Your task to perform on an android device: Look up the best rated bike seats on Target Image 0: 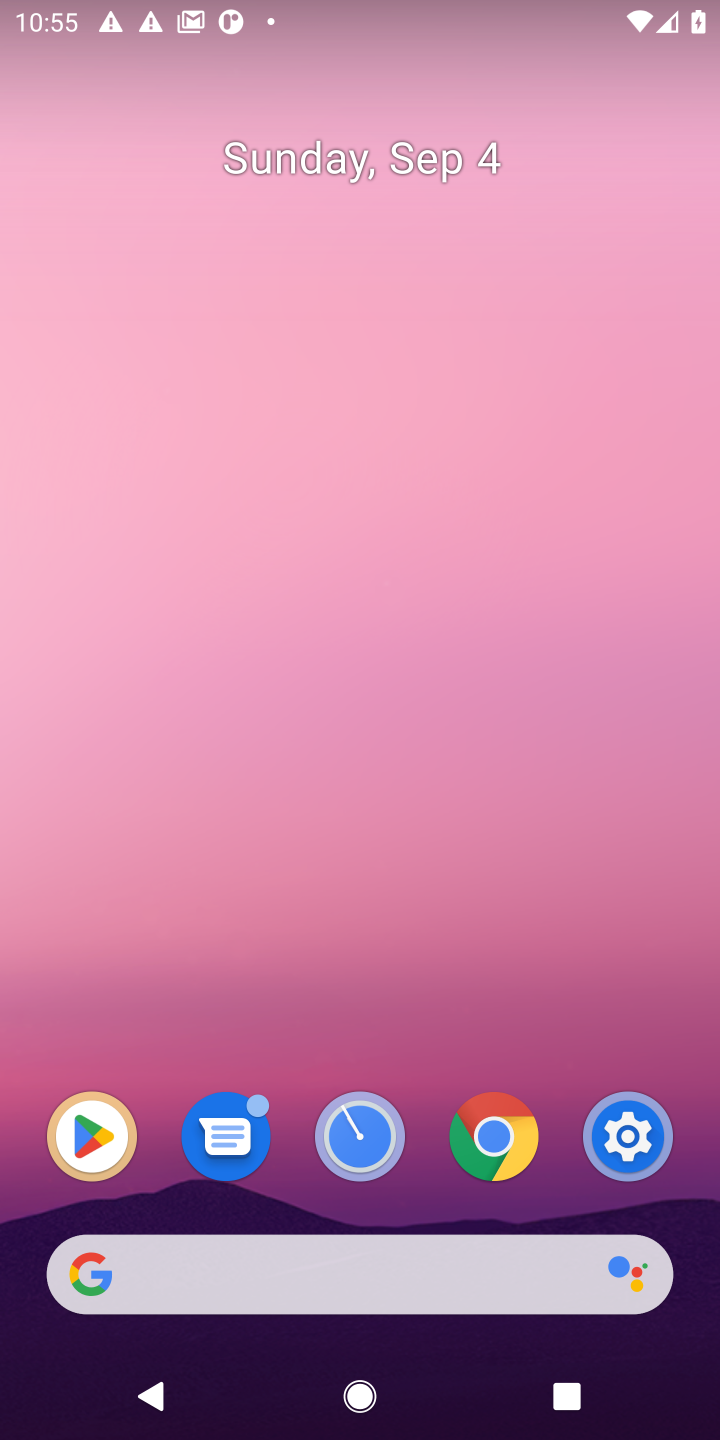
Step 0: click (489, 1139)
Your task to perform on an android device: Look up the best rated bike seats on Target Image 1: 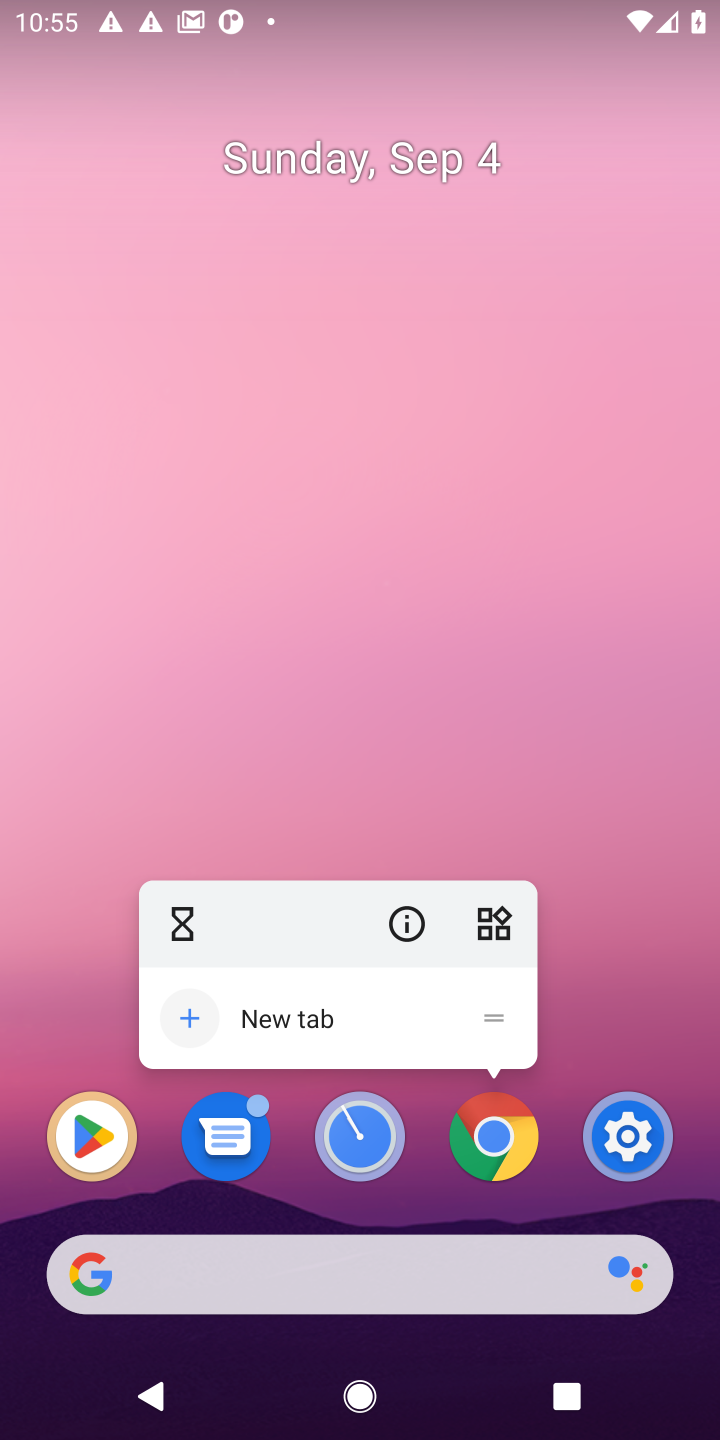
Step 1: click (496, 1148)
Your task to perform on an android device: Look up the best rated bike seats on Target Image 2: 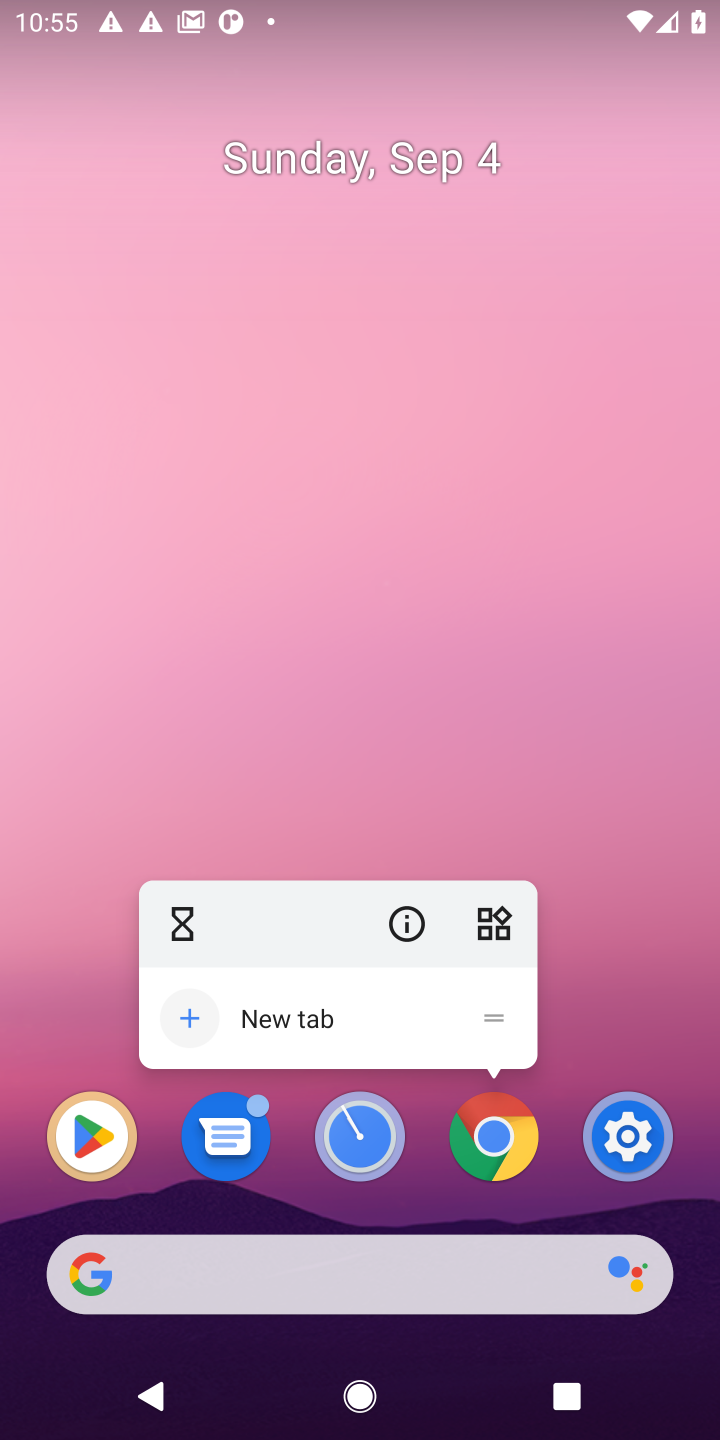
Step 2: click (495, 1134)
Your task to perform on an android device: Look up the best rated bike seats on Target Image 3: 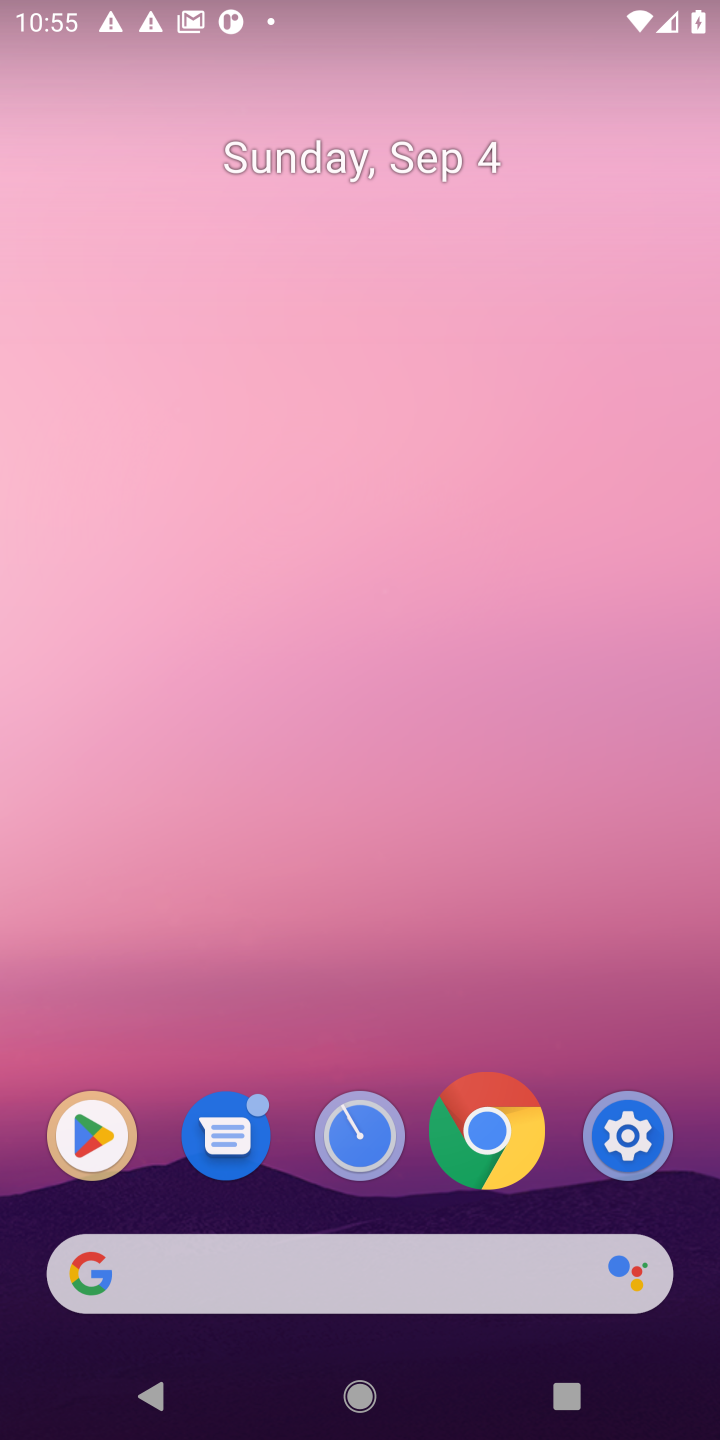
Step 3: click (485, 1151)
Your task to perform on an android device: Look up the best rated bike seats on Target Image 4: 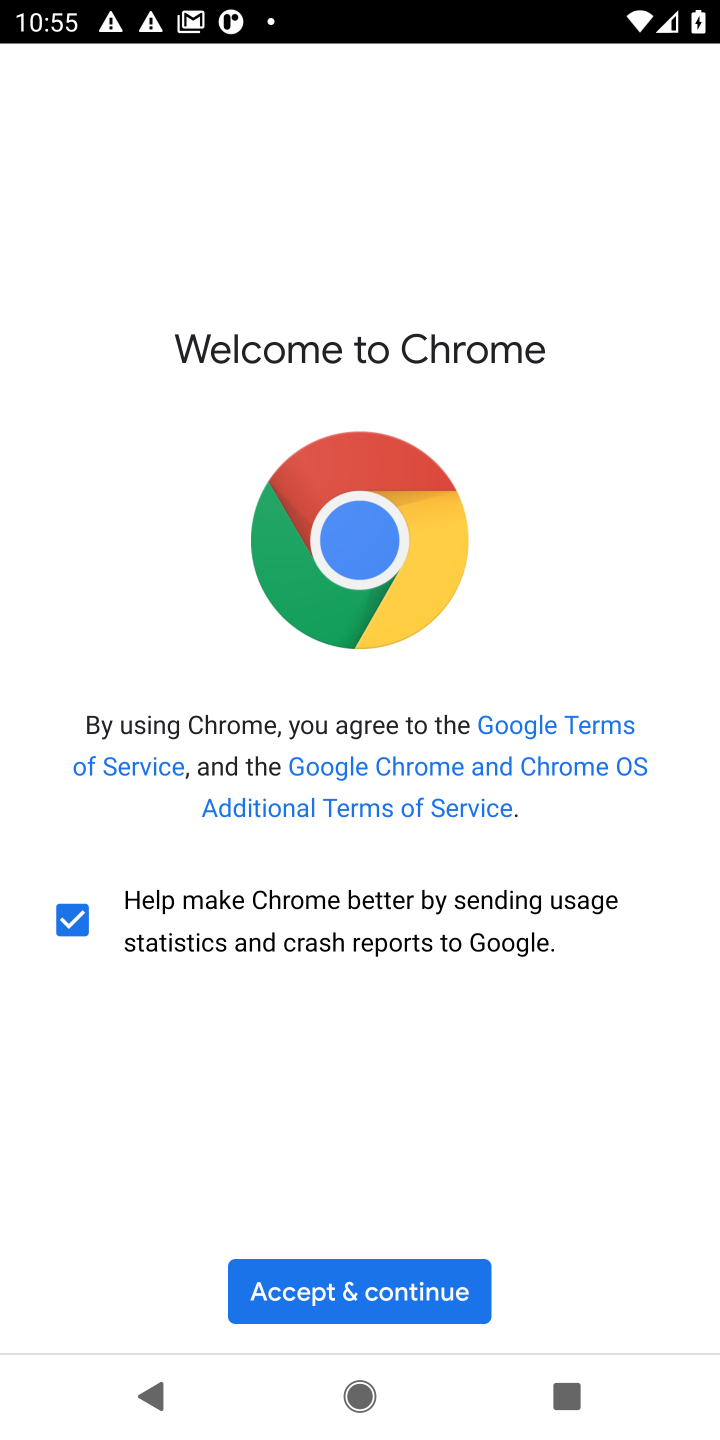
Step 4: click (350, 1313)
Your task to perform on an android device: Look up the best rated bike seats on Target Image 5: 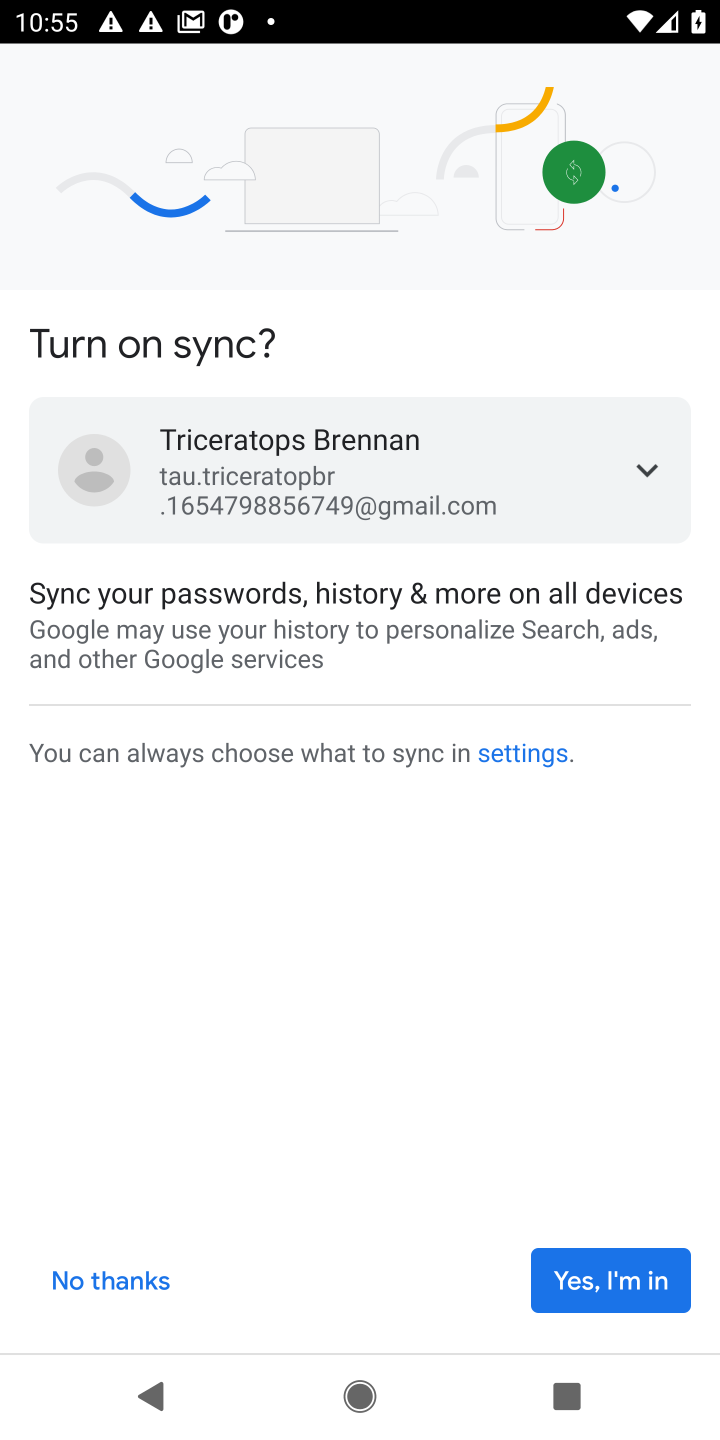
Step 5: click (572, 1275)
Your task to perform on an android device: Look up the best rated bike seats on Target Image 6: 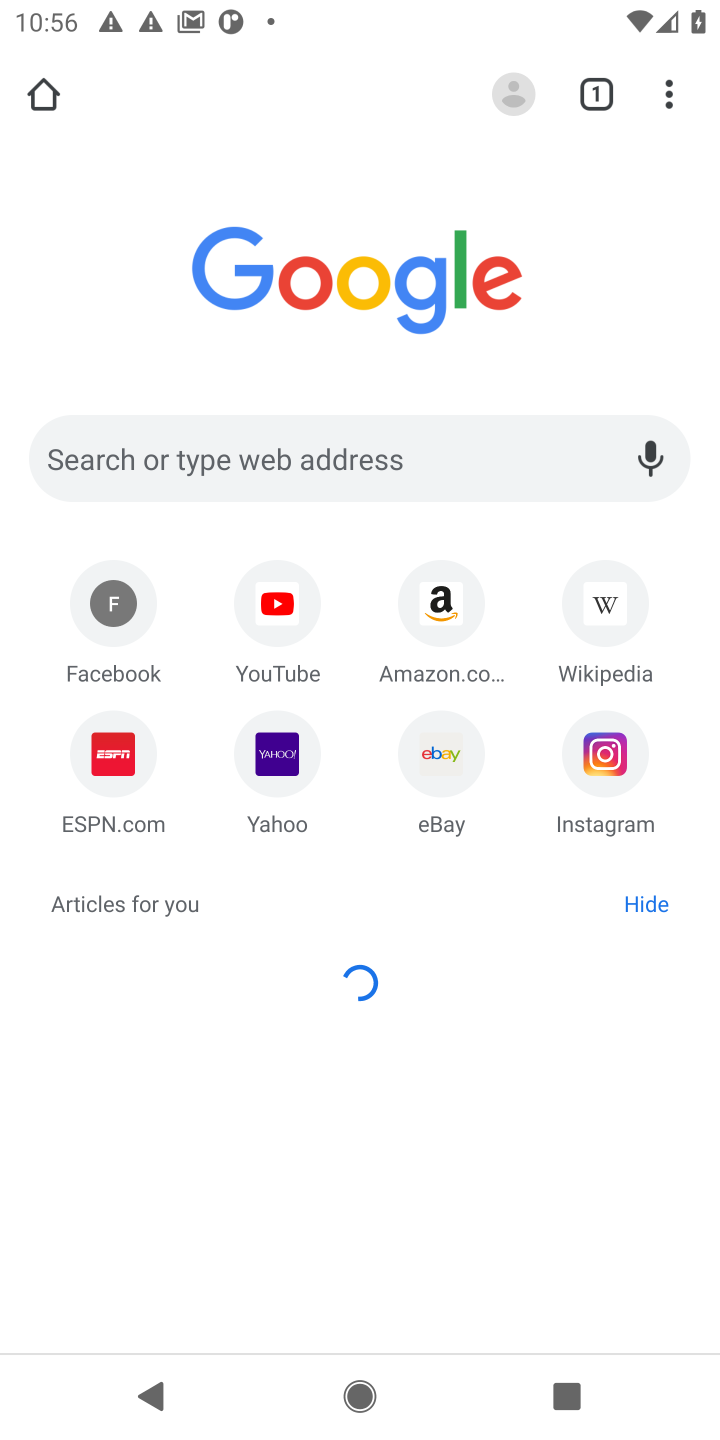
Step 6: click (401, 455)
Your task to perform on an android device: Look up the best rated bike seats on Target Image 7: 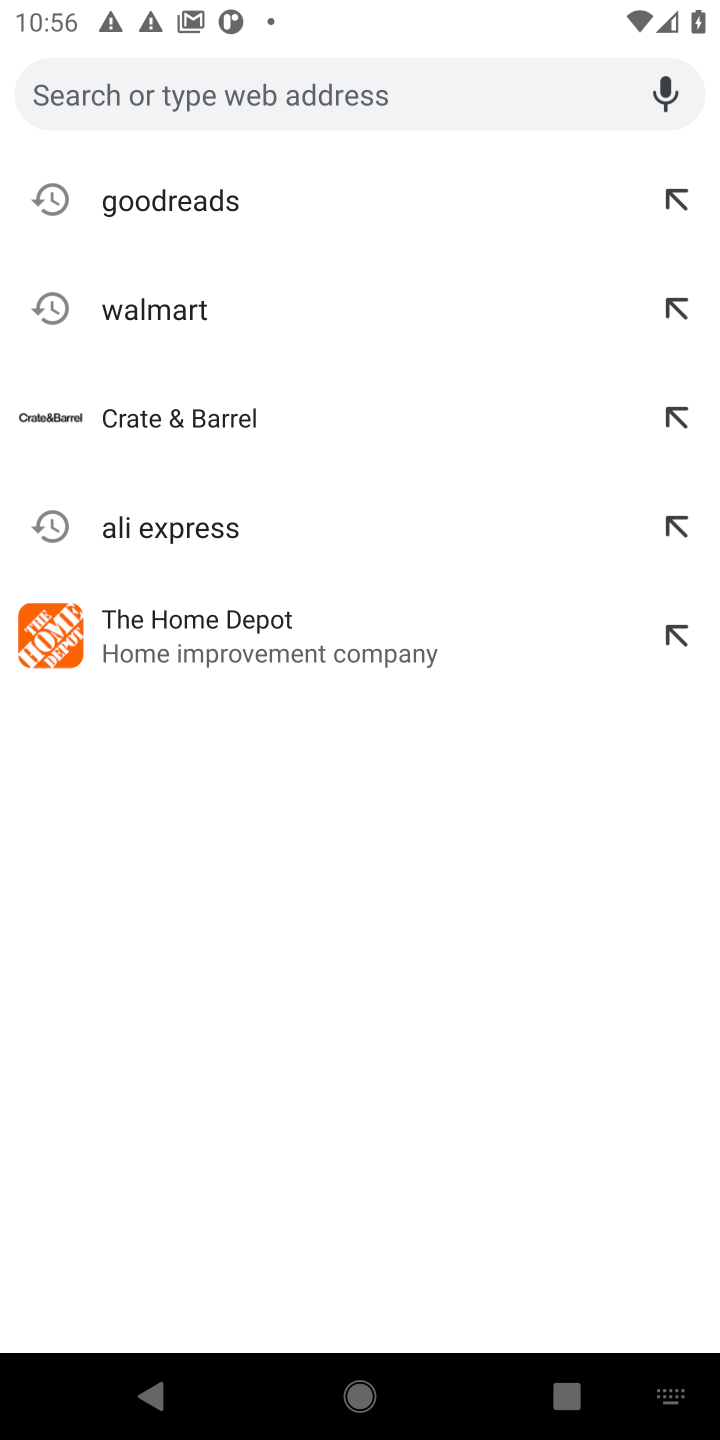
Step 7: click (185, 74)
Your task to perform on an android device: Look up the best rated bike seats on Target Image 8: 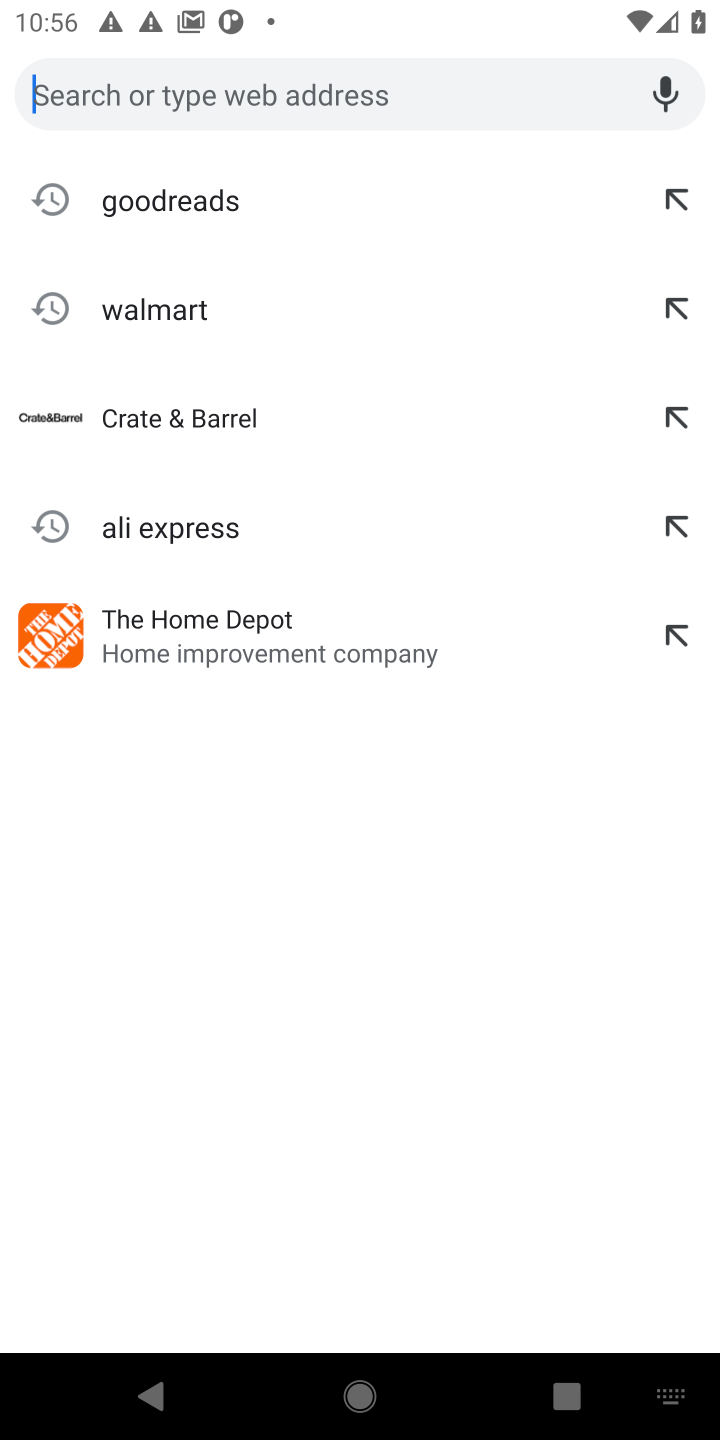
Step 8: type "Target"
Your task to perform on an android device: Look up the best rated bike seats on Target Image 9: 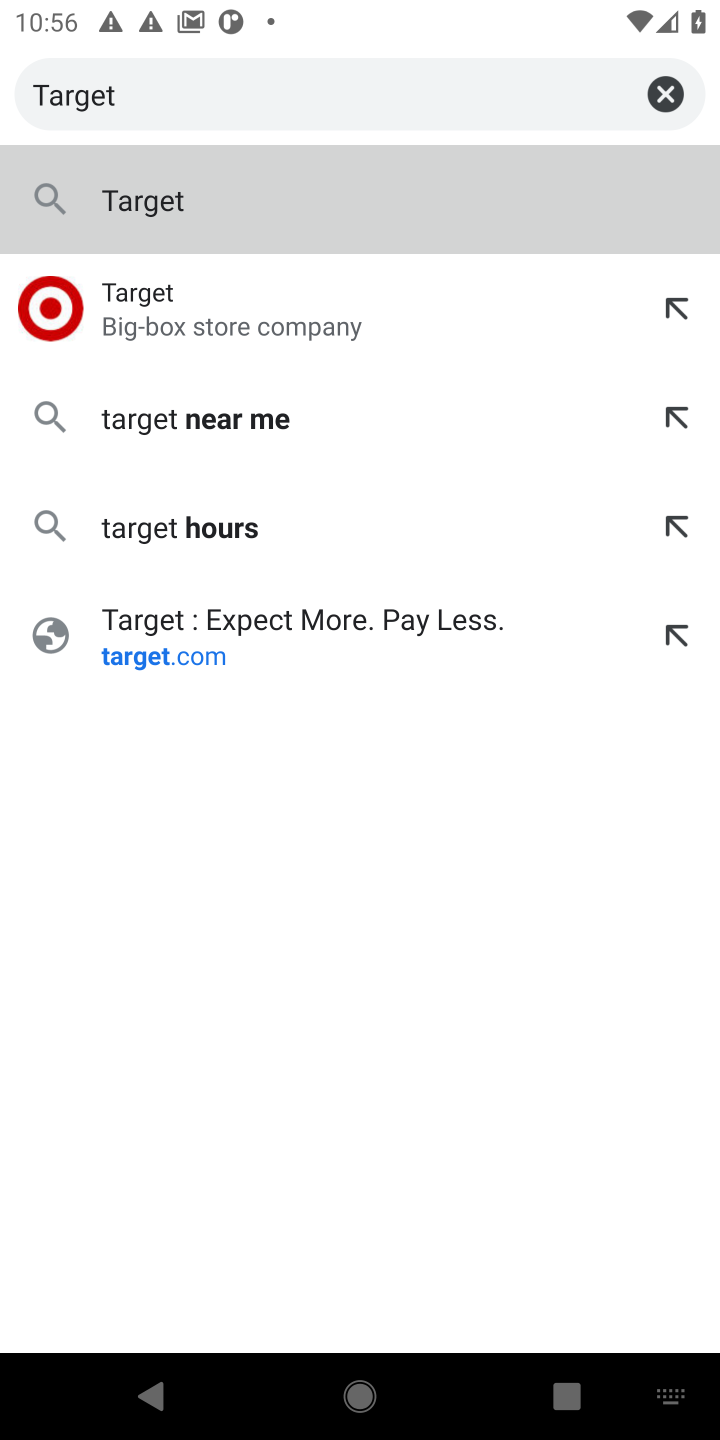
Step 9: press enter
Your task to perform on an android device: Look up the best rated bike seats on Target Image 10: 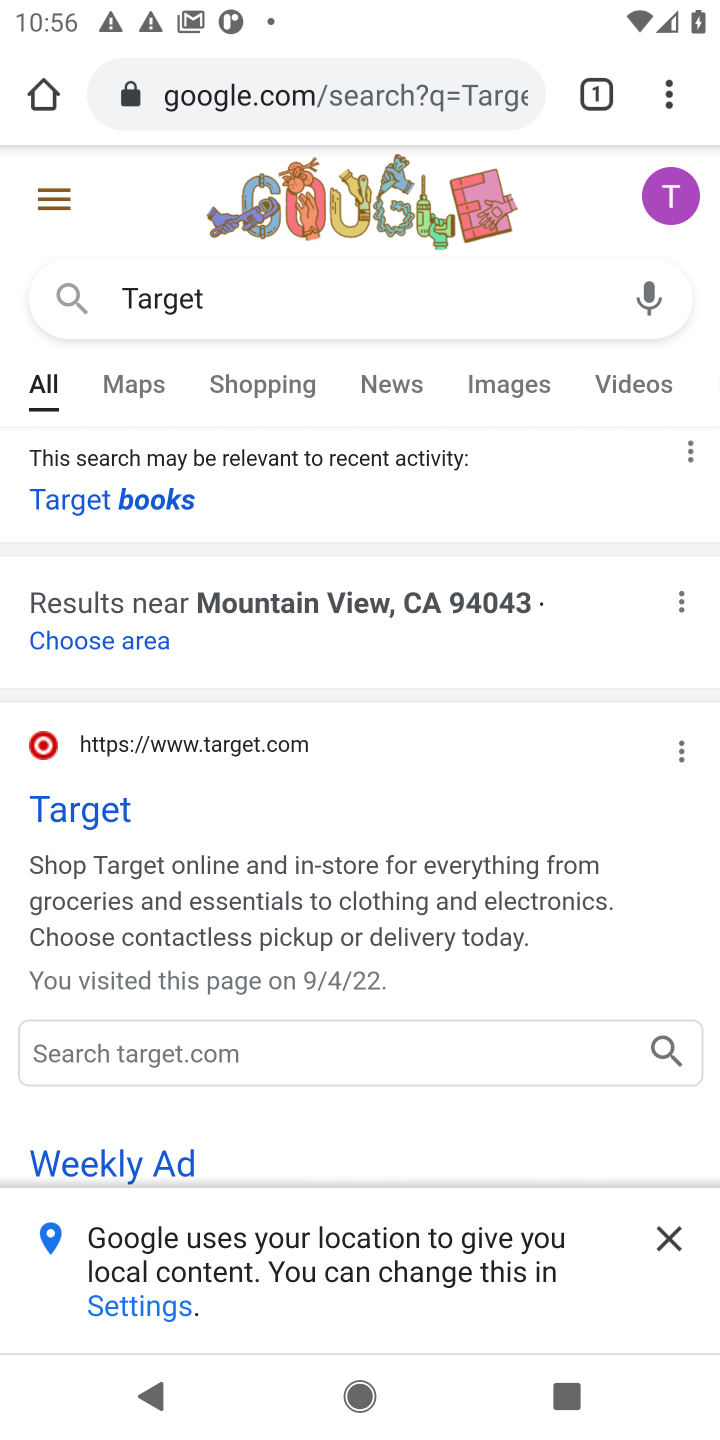
Step 10: click (73, 813)
Your task to perform on an android device: Look up the best rated bike seats on Target Image 11: 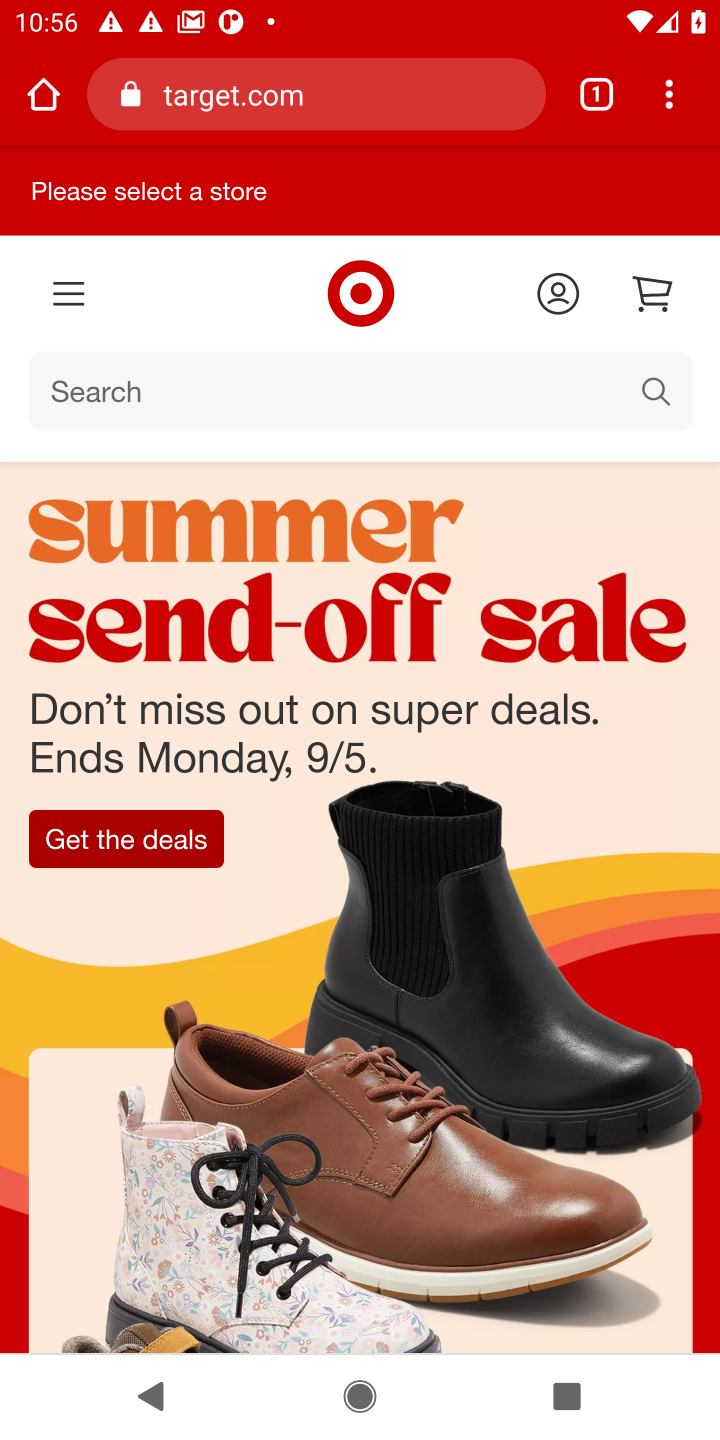
Step 11: click (162, 391)
Your task to perform on an android device: Look up the best rated bike seats on Target Image 12: 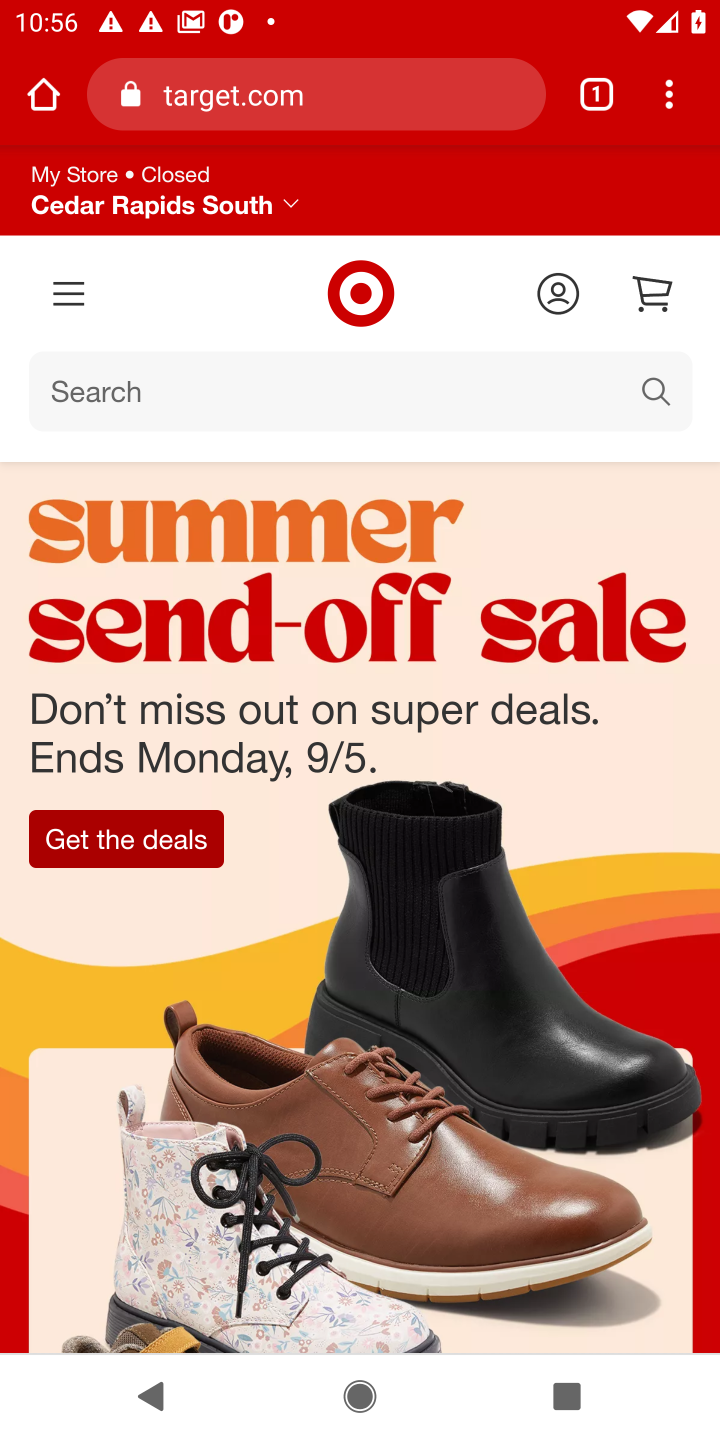
Step 12: click (95, 386)
Your task to perform on an android device: Look up the best rated bike seats on Target Image 13: 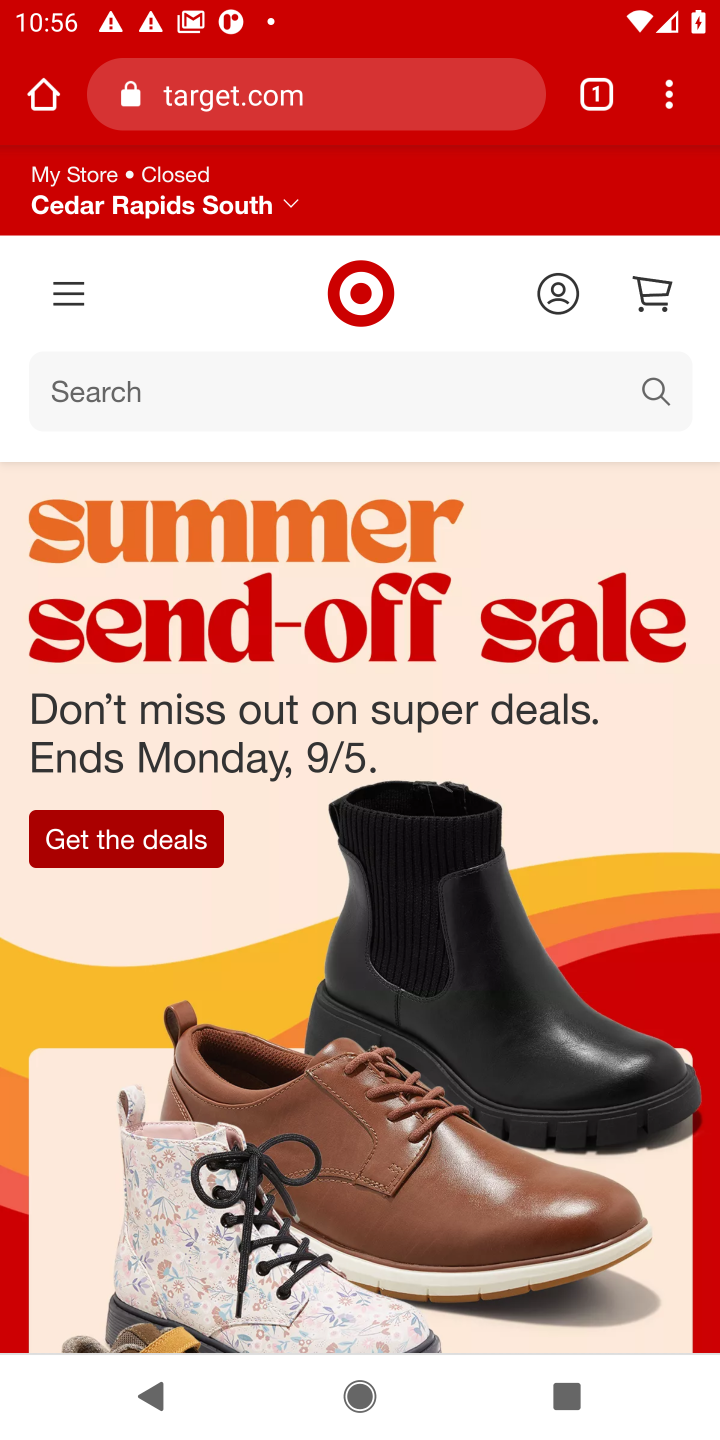
Step 13: click (651, 381)
Your task to perform on an android device: Look up the best rated bike seats on Target Image 14: 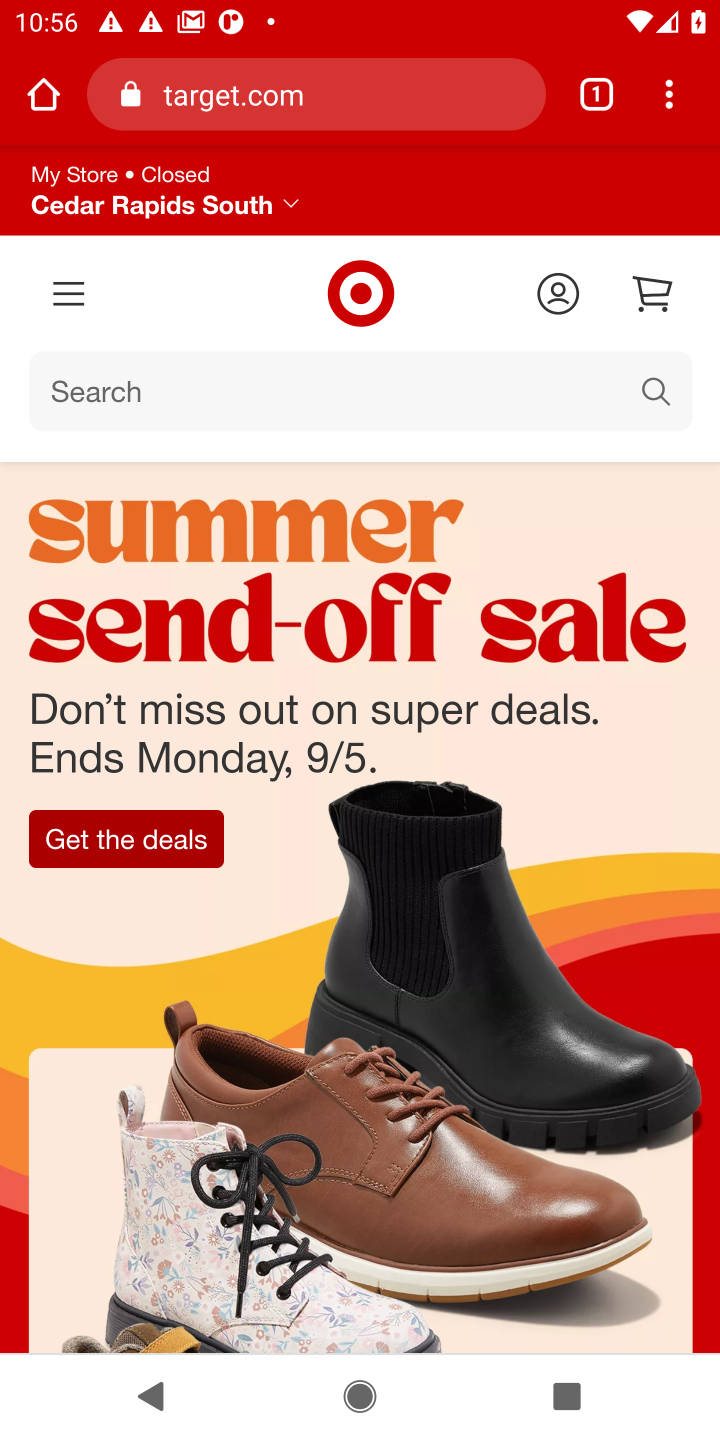
Step 14: click (84, 387)
Your task to perform on an android device: Look up the best rated bike seats on Target Image 15: 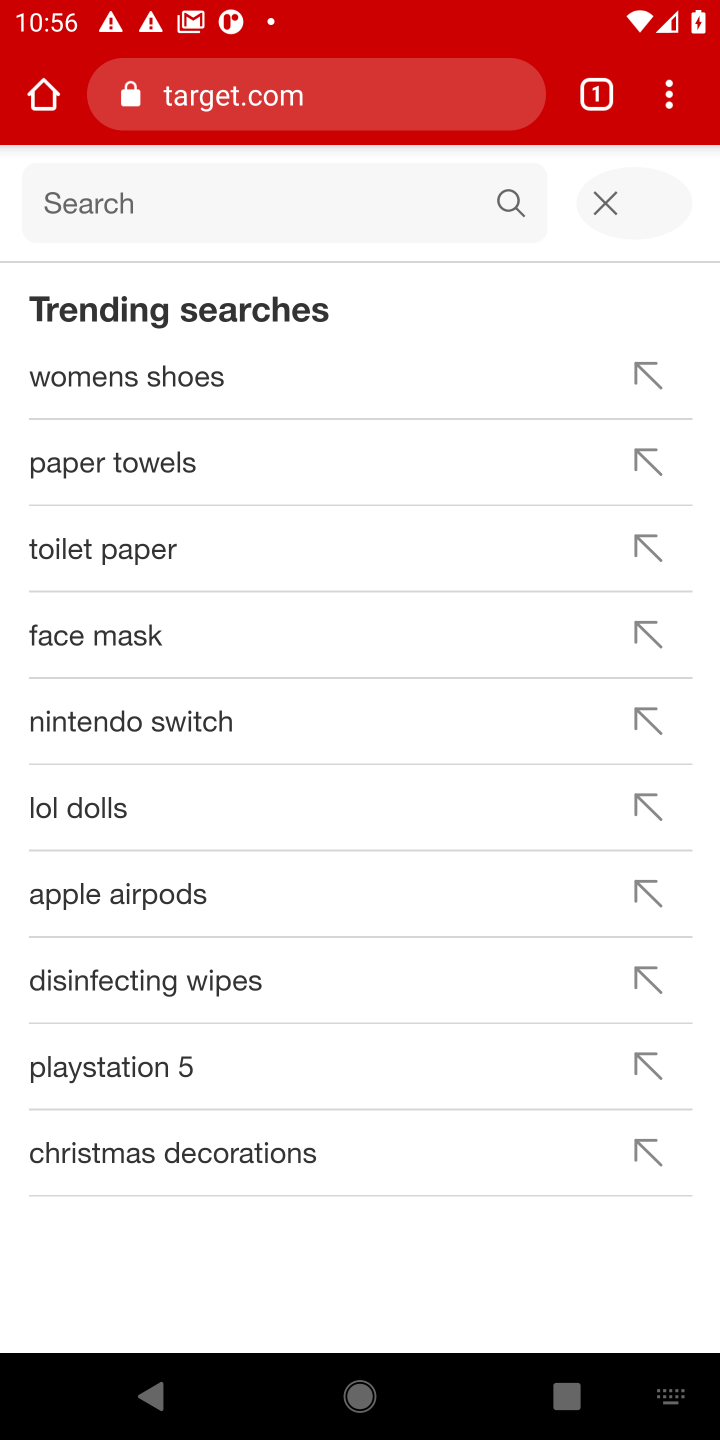
Step 15: click (101, 190)
Your task to perform on an android device: Look up the best rated bike seats on Target Image 16: 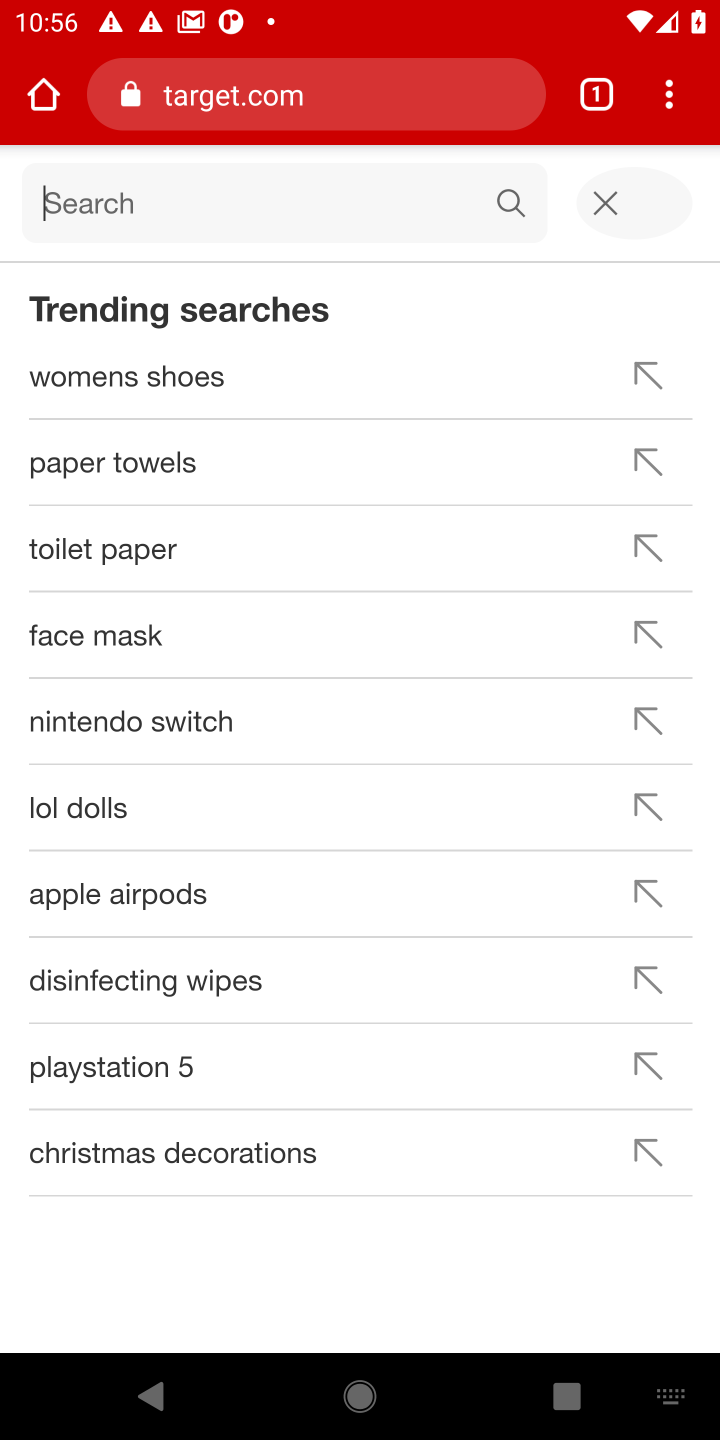
Step 16: press enter
Your task to perform on an android device: Look up the best rated bike seats on Target Image 17: 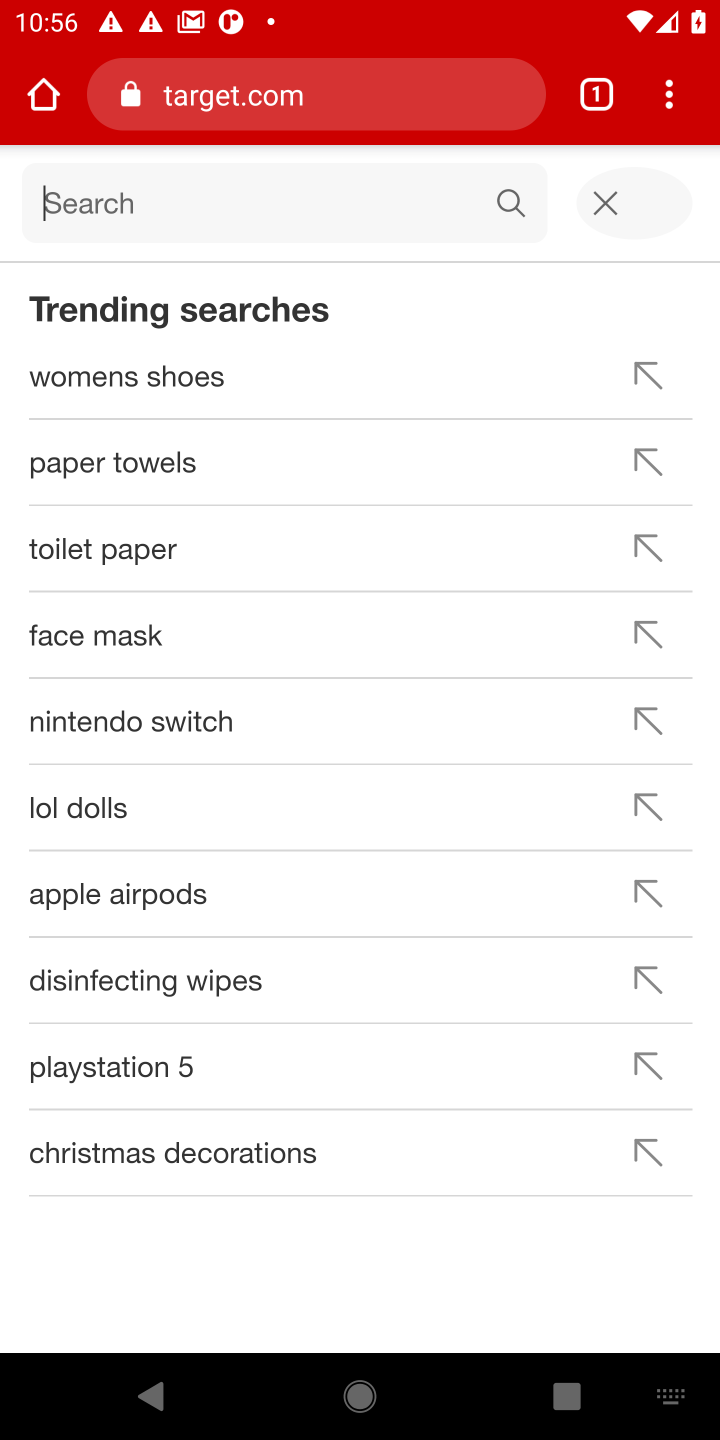
Step 17: type "bike seats "
Your task to perform on an android device: Look up the best rated bike seats on Target Image 18: 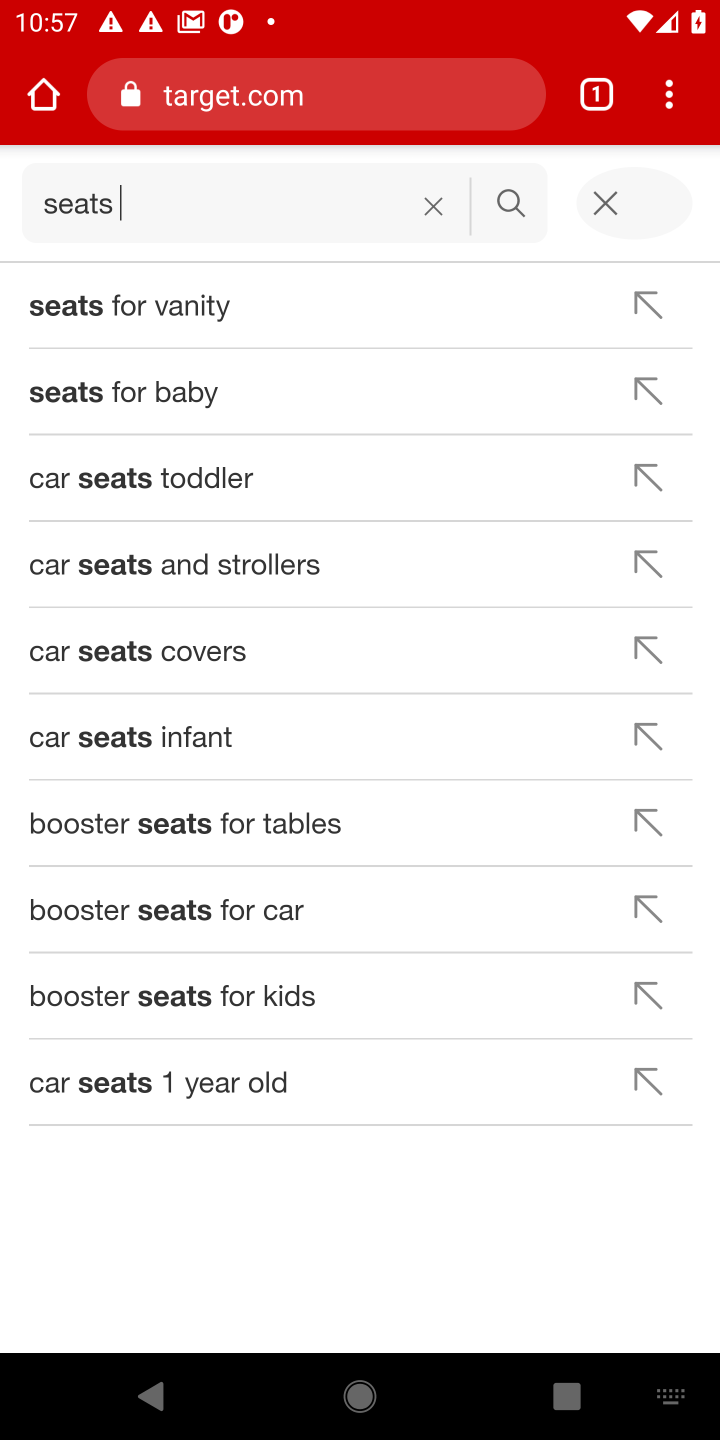
Step 18: click (434, 191)
Your task to perform on an android device: Look up the best rated bike seats on Target Image 19: 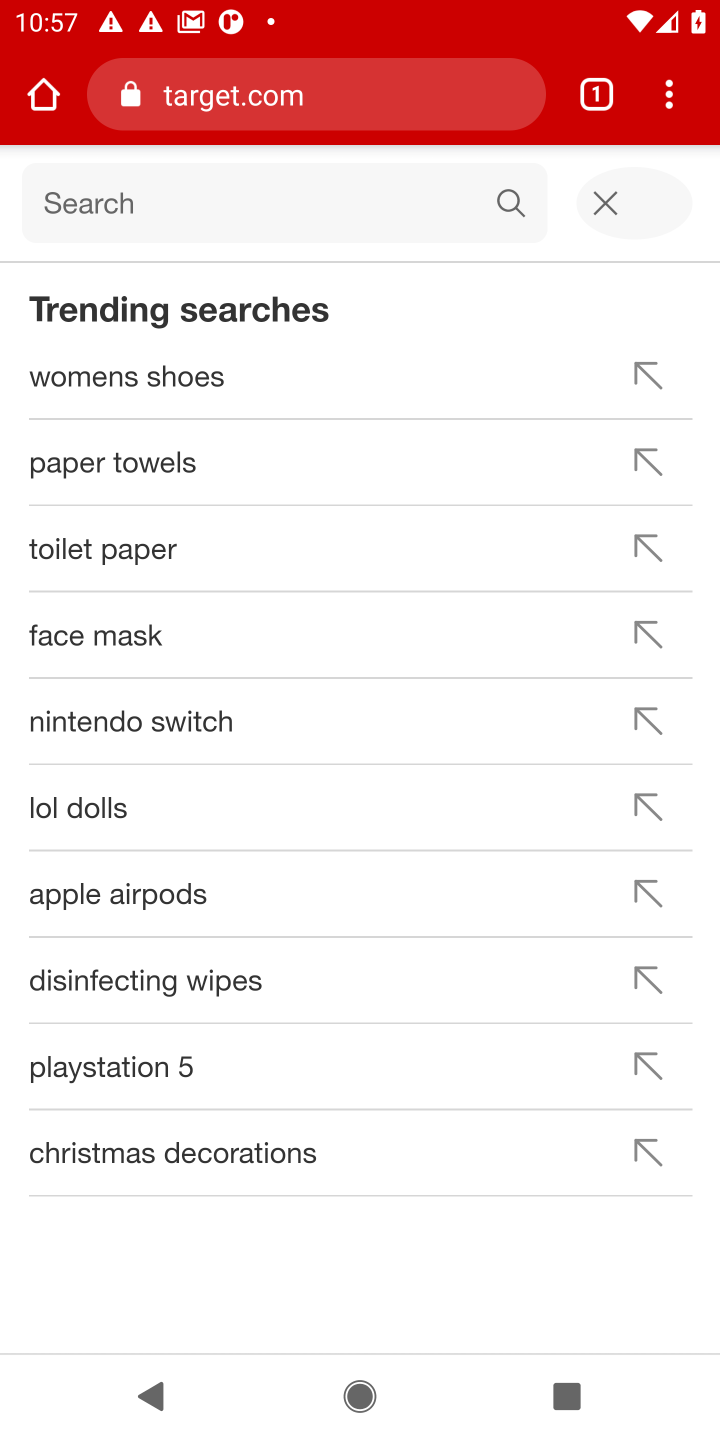
Step 19: type " bike seats"
Your task to perform on an android device: Look up the best rated bike seats on Target Image 20: 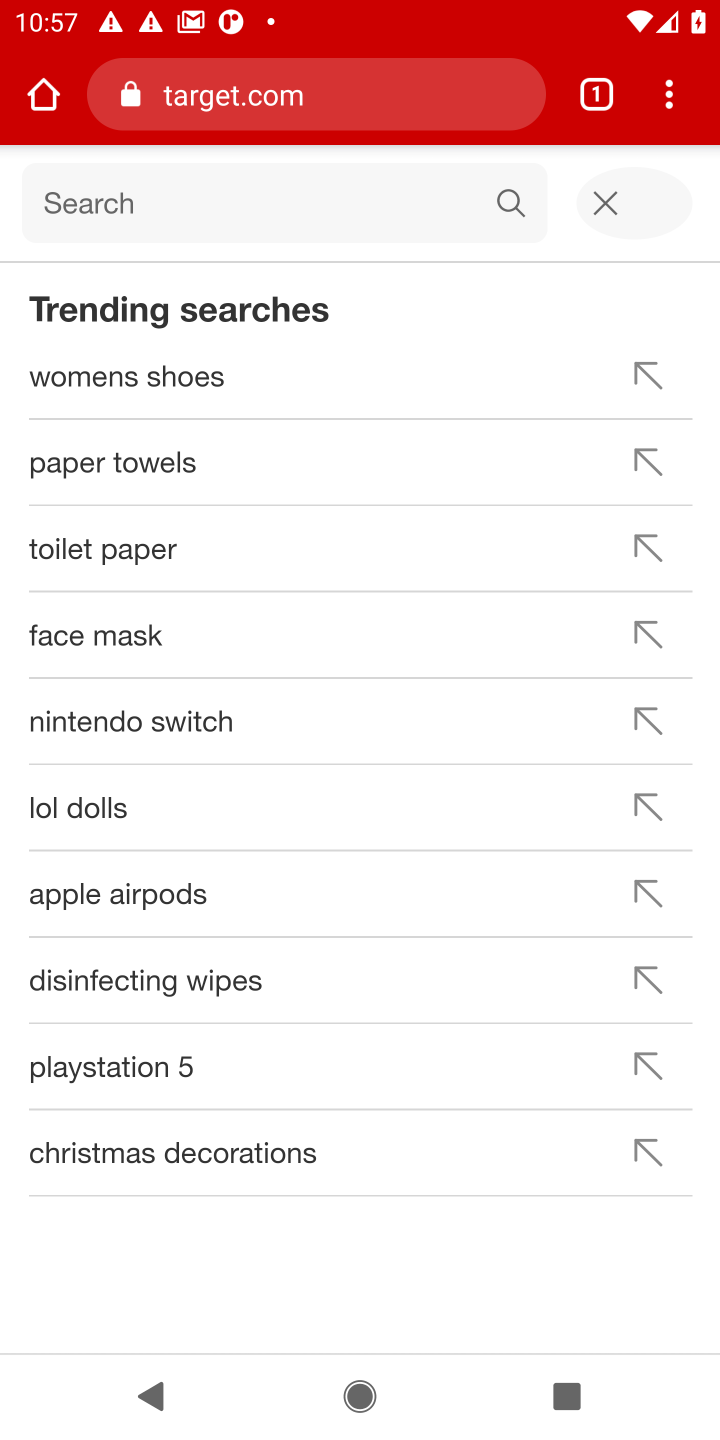
Step 20: press enter
Your task to perform on an android device: Look up the best rated bike seats on Target Image 21: 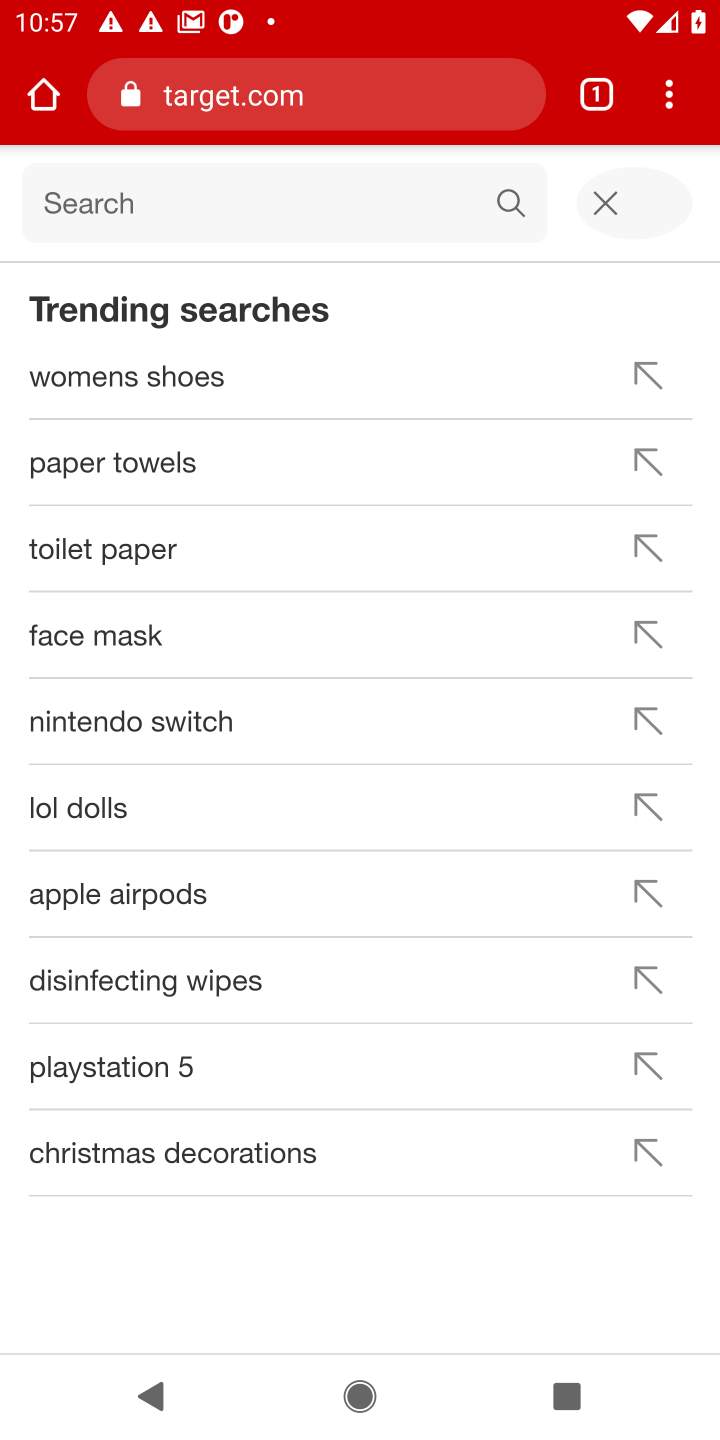
Step 21: click (81, 216)
Your task to perform on an android device: Look up the best rated bike seats on Target Image 22: 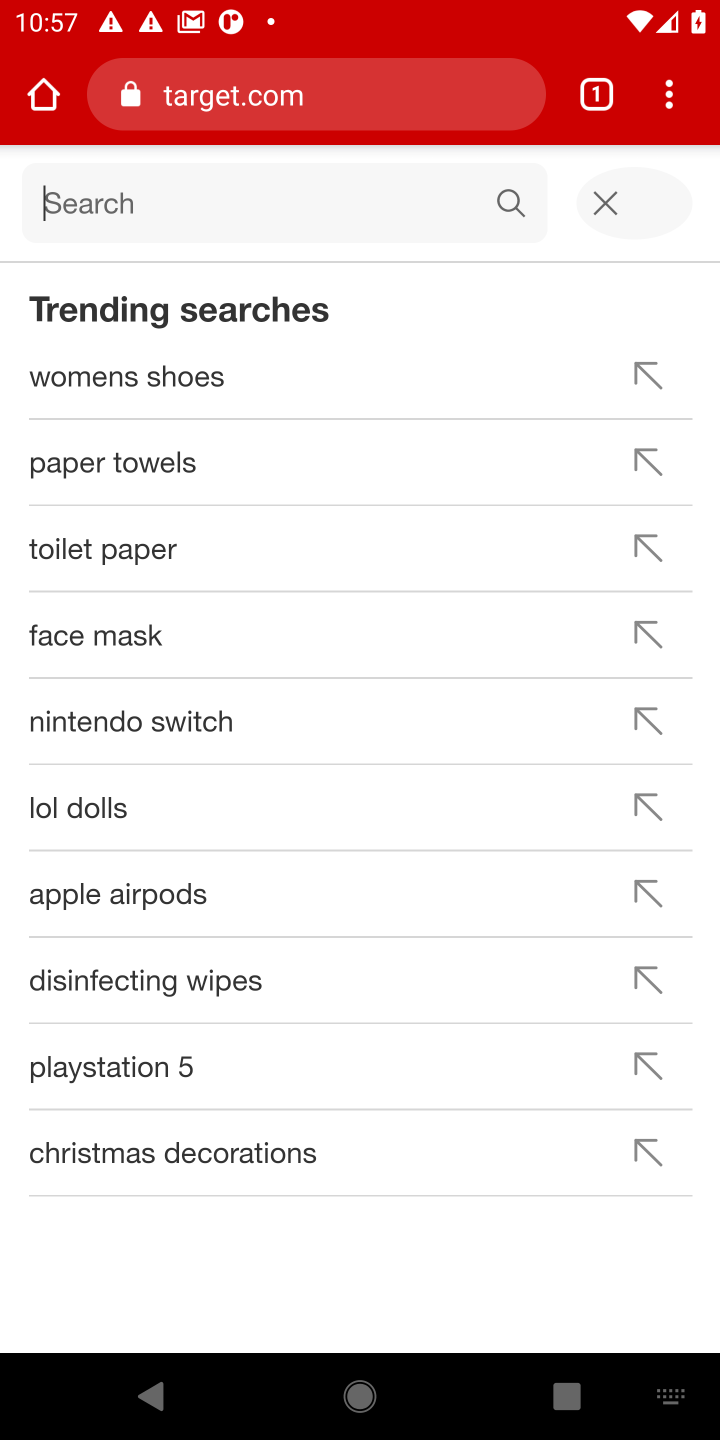
Step 22: press enter
Your task to perform on an android device: Look up the best rated bike seats on Target Image 23: 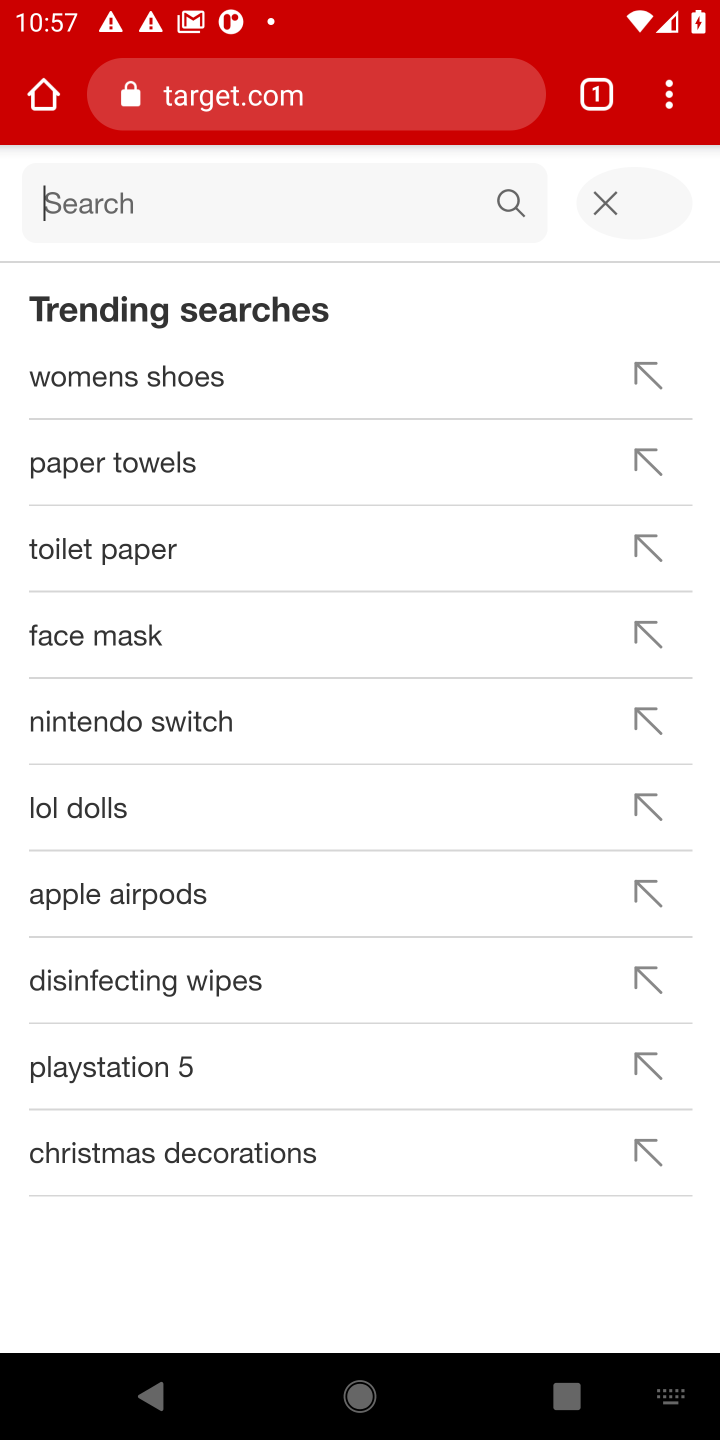
Step 23: type " bike seats"
Your task to perform on an android device: Look up the best rated bike seats on Target Image 24: 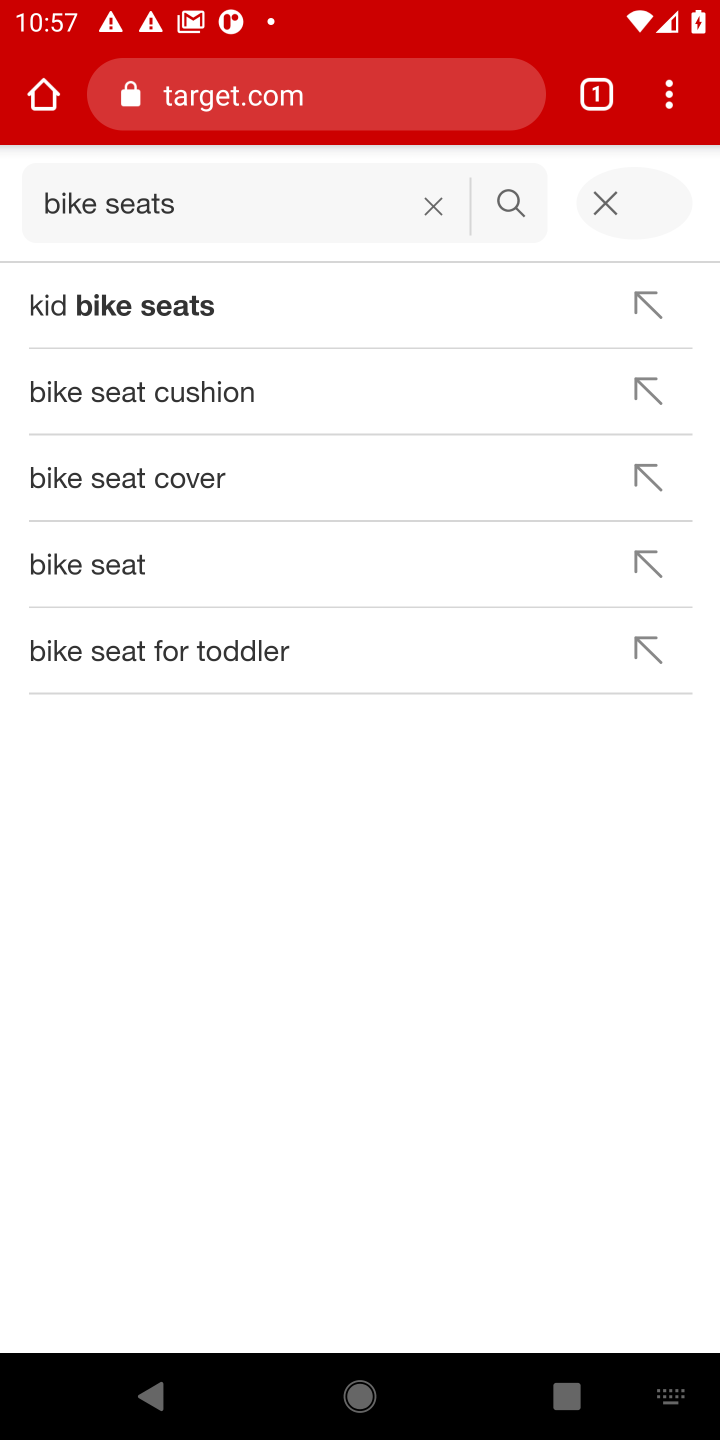
Step 24: click (507, 205)
Your task to perform on an android device: Look up the best rated bike seats on Target Image 25: 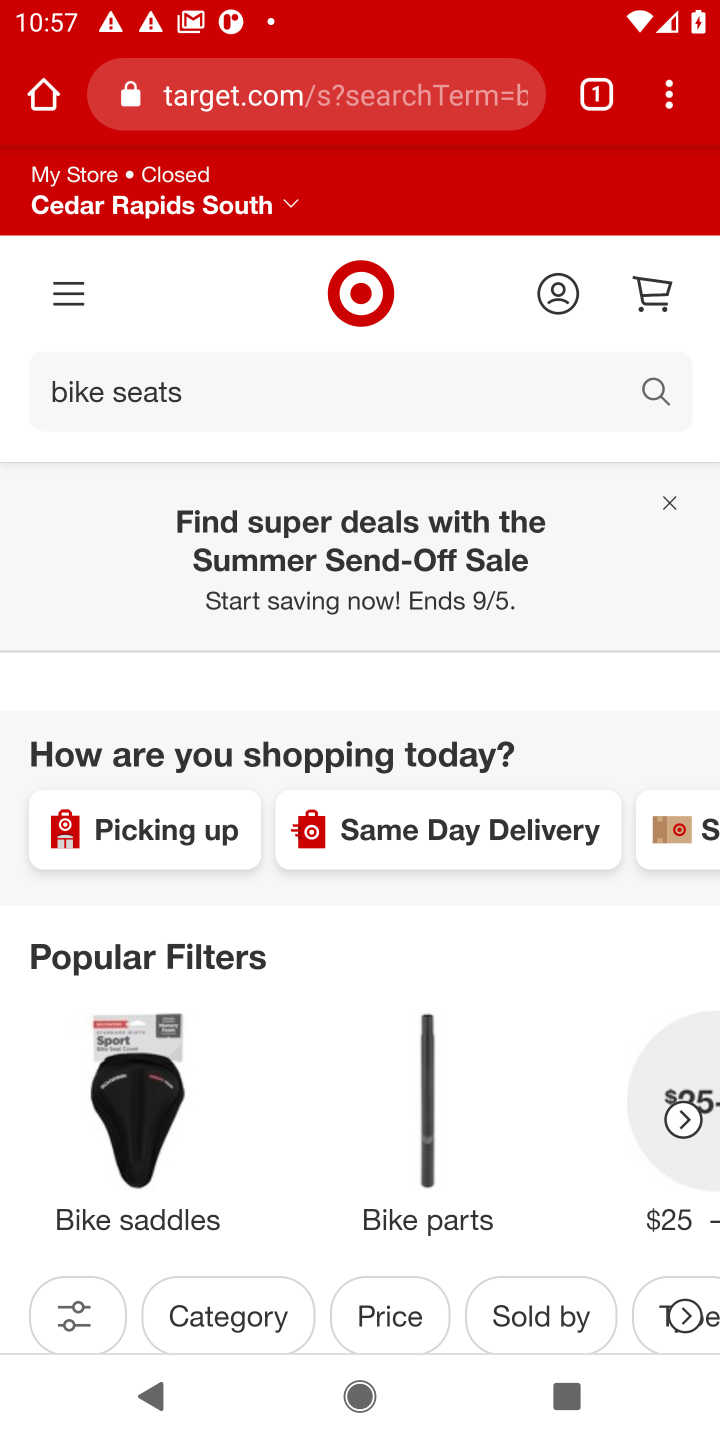
Step 25: task complete